Your task to perform on an android device: uninstall "Google Docs" Image 0: 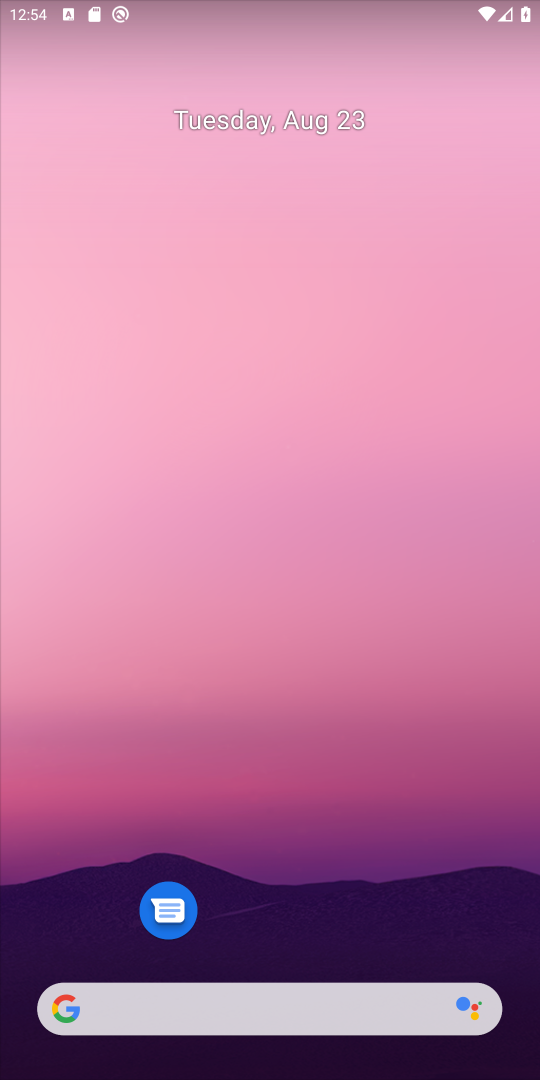
Step 0: drag from (286, 925) to (235, 149)
Your task to perform on an android device: uninstall "Google Docs" Image 1: 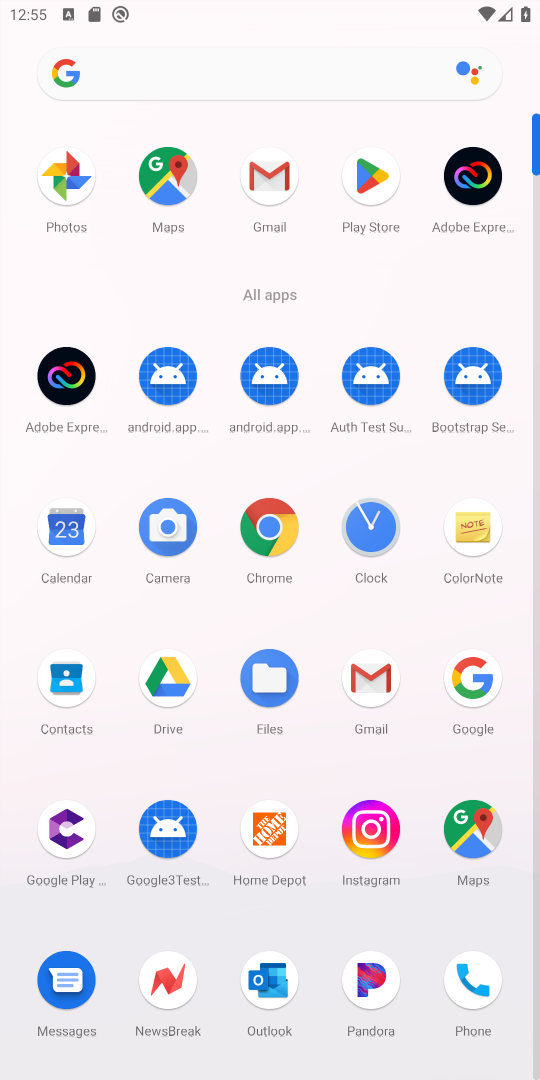
Step 1: click (353, 178)
Your task to perform on an android device: uninstall "Google Docs" Image 2: 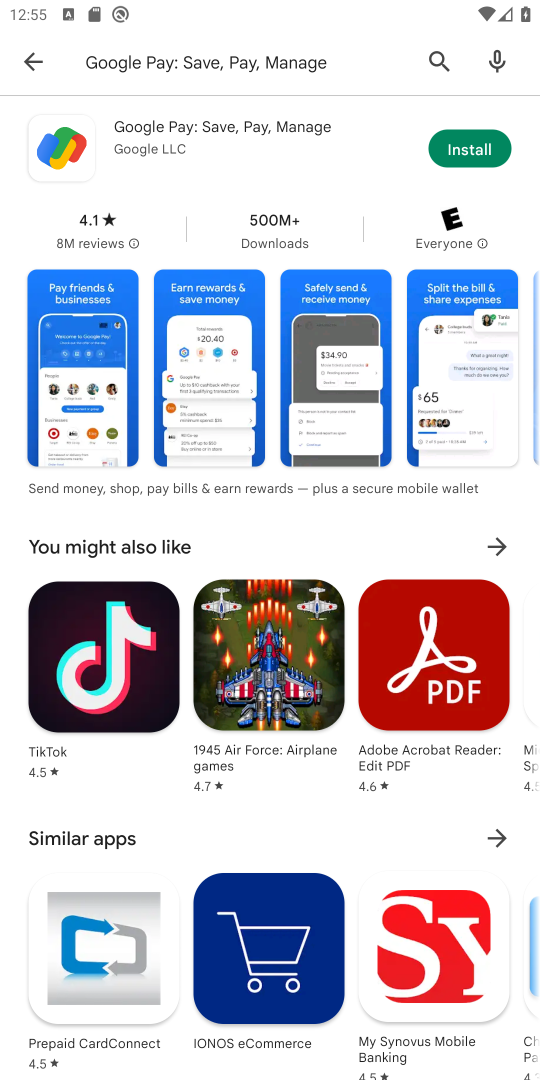
Step 2: press back button
Your task to perform on an android device: uninstall "Google Docs" Image 3: 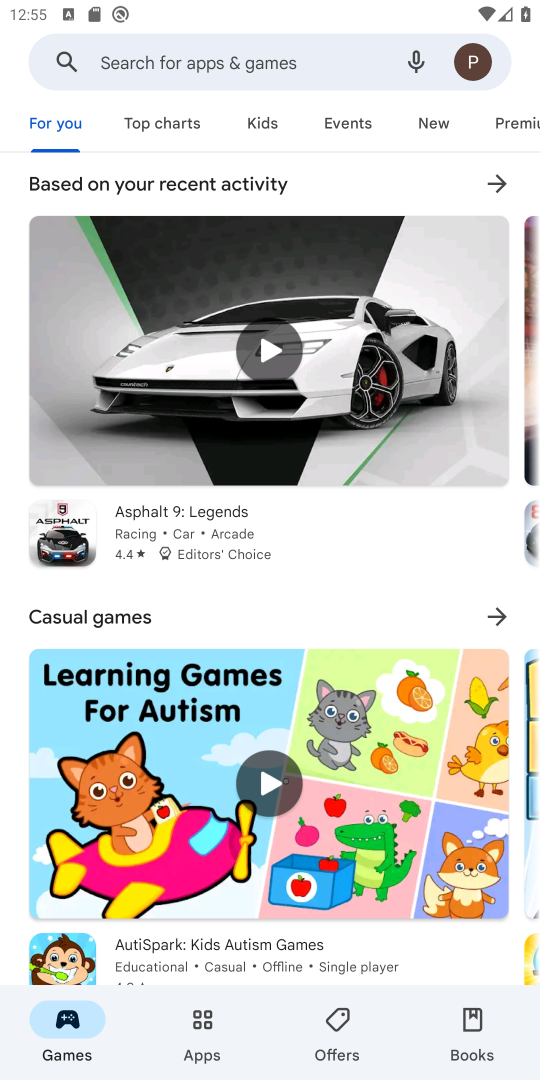
Step 3: click (129, 67)
Your task to perform on an android device: uninstall "Google Docs" Image 4: 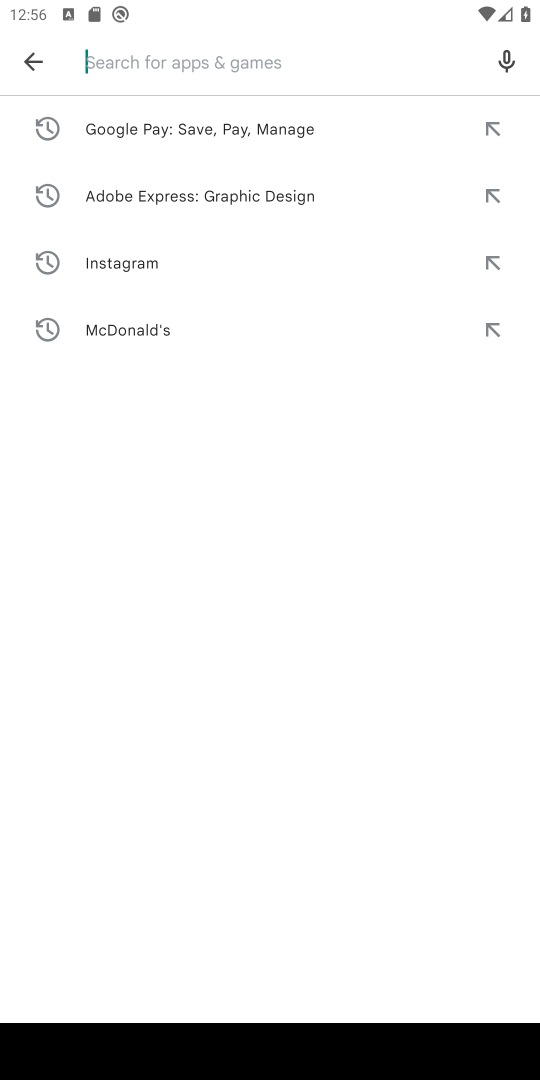
Step 4: type "Google Docs"
Your task to perform on an android device: uninstall "Google Docs" Image 5: 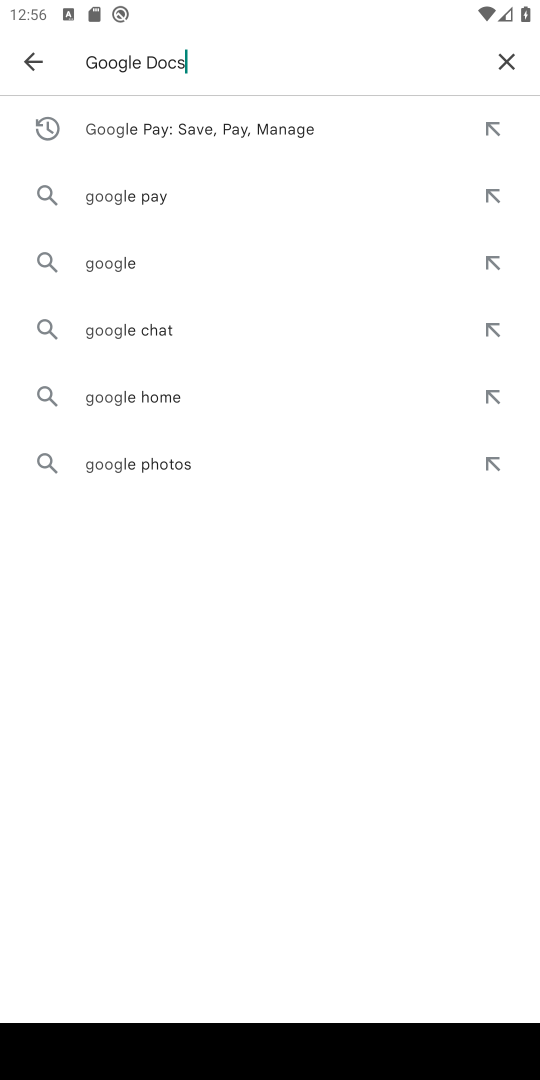
Step 5: press enter
Your task to perform on an android device: uninstall "Google Docs" Image 6: 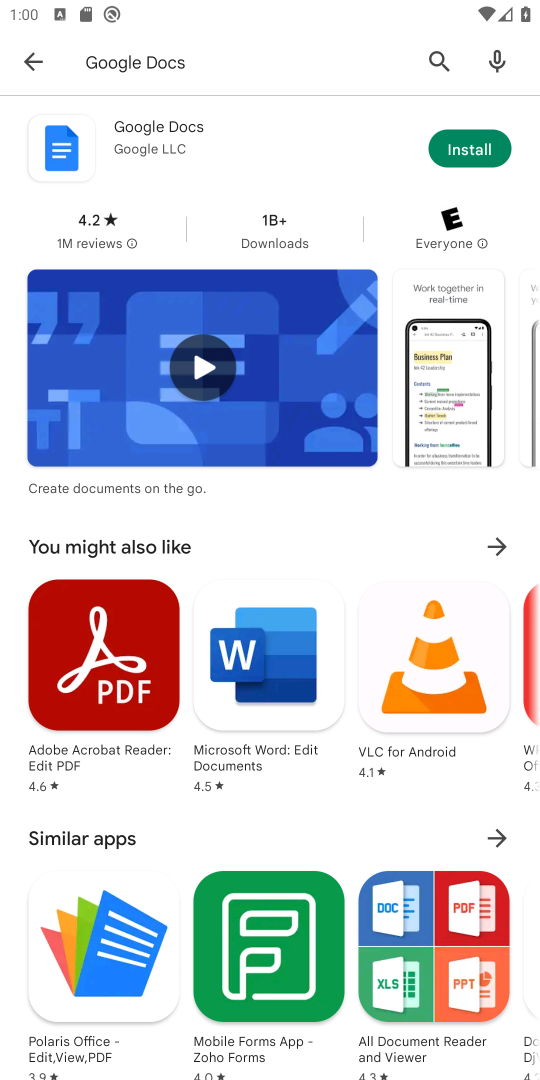
Step 6: task complete